Your task to perform on an android device: What is the price of a 12' ladder at Home Depot? Image 0: 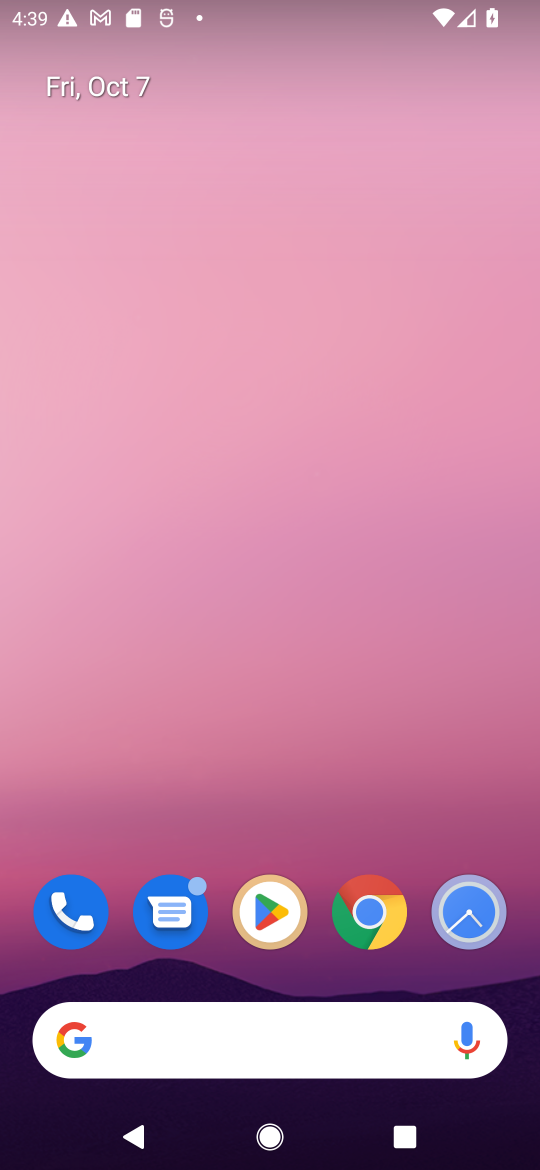
Step 0: drag from (131, 924) to (227, 357)
Your task to perform on an android device: What is the price of a 12' ladder at Home Depot? Image 1: 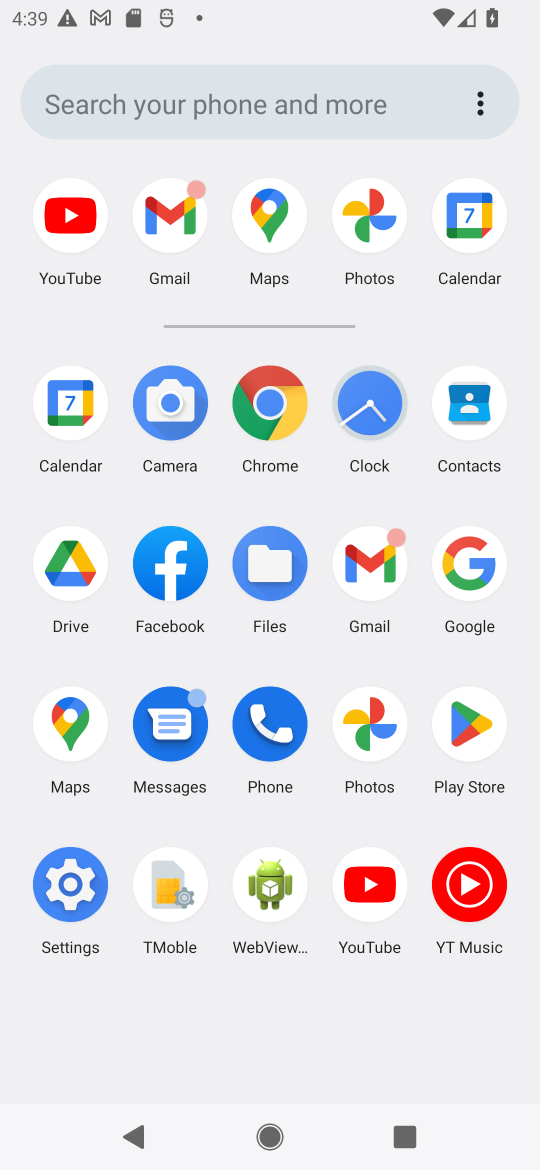
Step 1: click (473, 556)
Your task to perform on an android device: What is the price of a 12' ladder at Home Depot? Image 2: 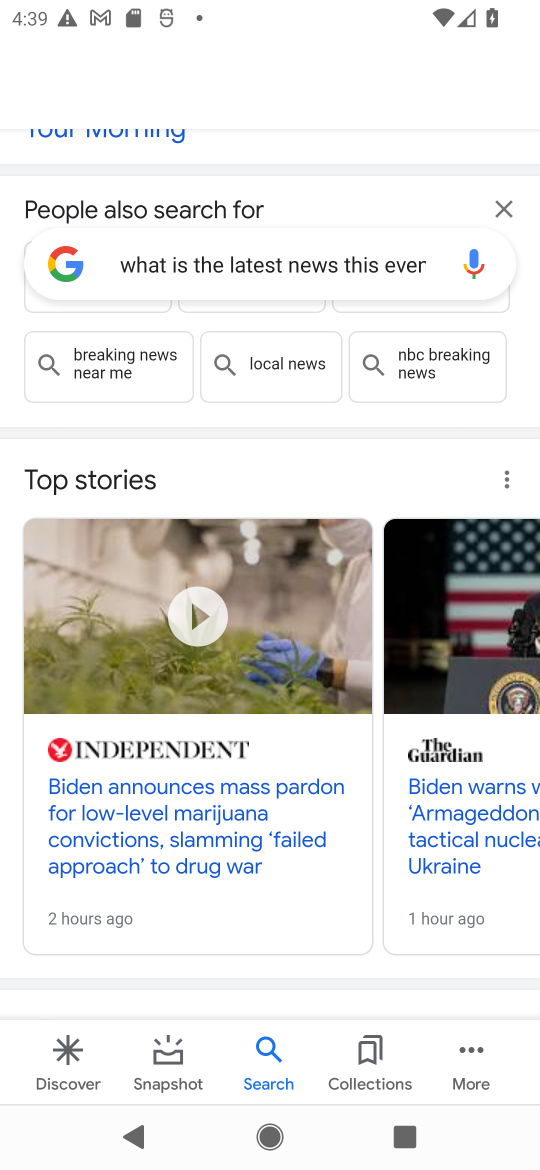
Step 2: click (360, 273)
Your task to perform on an android device: What is the price of a 12' ladder at Home Depot? Image 3: 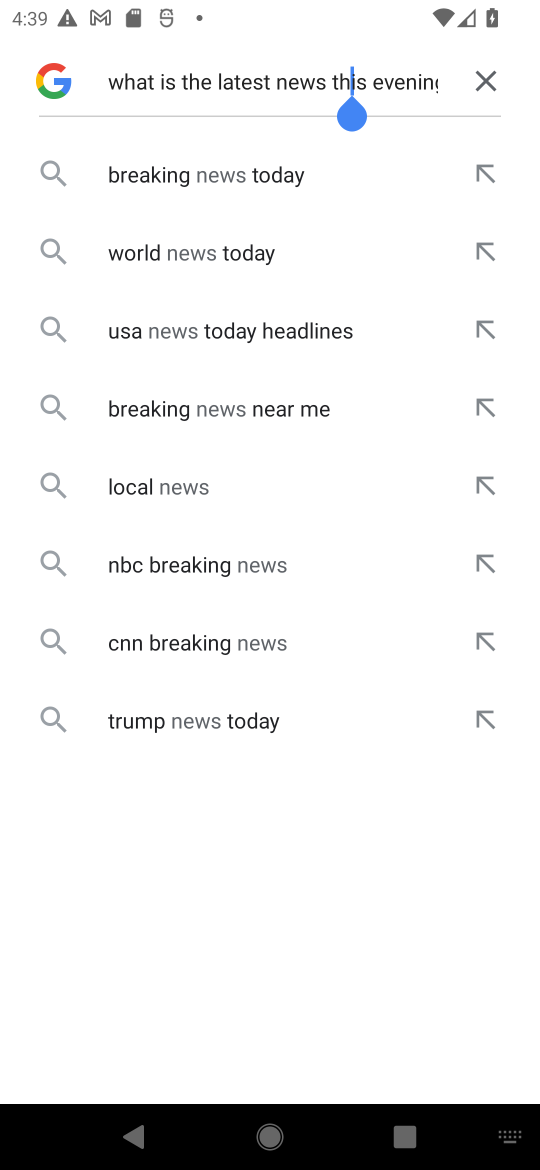
Step 3: click (466, 86)
Your task to perform on an android device: What is the price of a 12' ladder at Home Depot? Image 4: 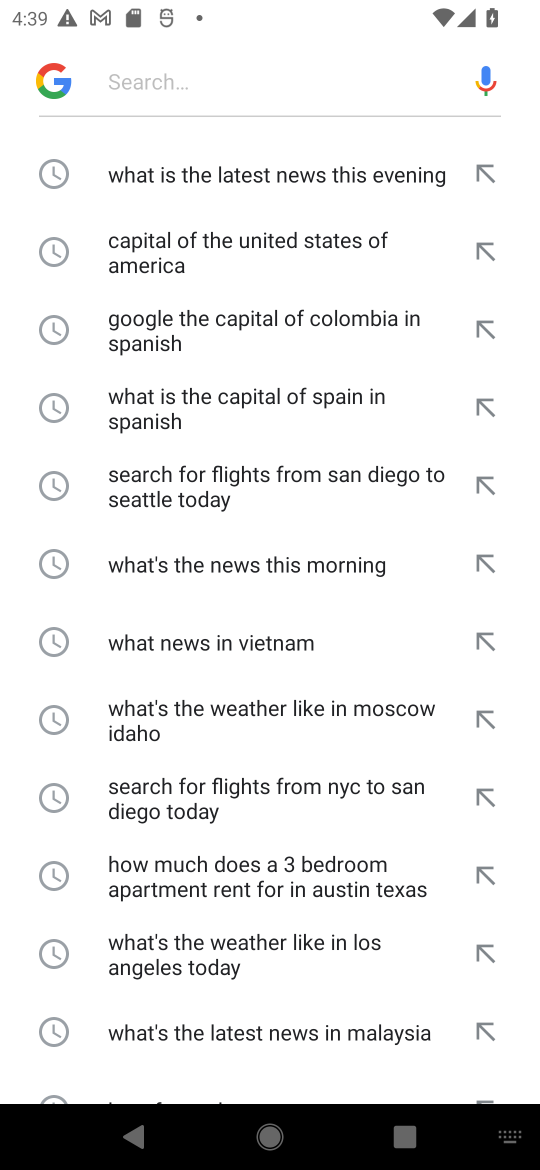
Step 4: click (288, 57)
Your task to perform on an android device: What is the price of a 12' ladder at Home Depot? Image 5: 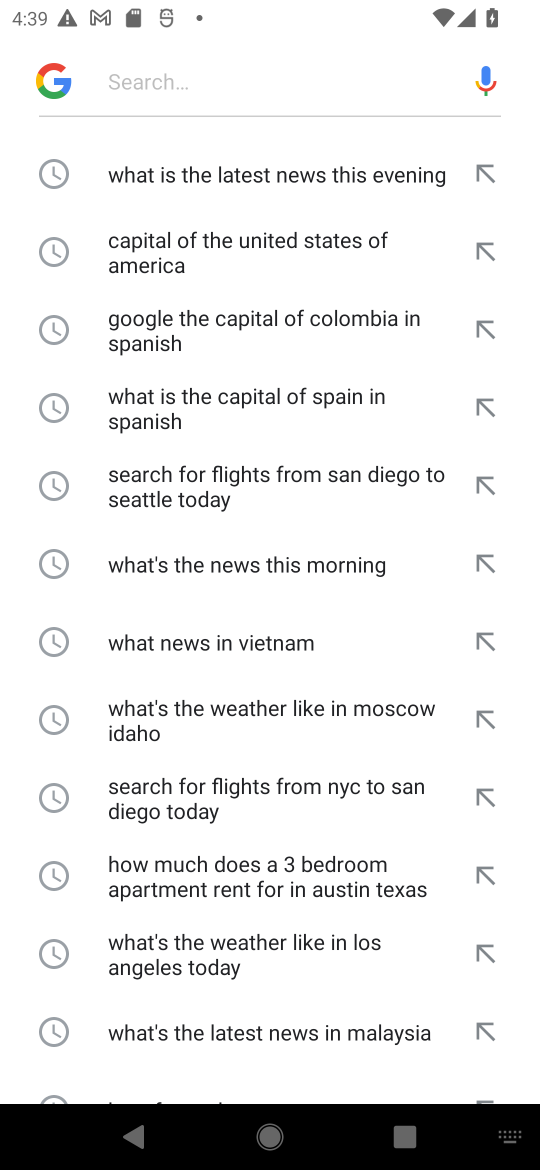
Step 5: type "What is the price of a 12' ladder at Home Depot? "
Your task to perform on an android device: What is the price of a 12' ladder at Home Depot? Image 6: 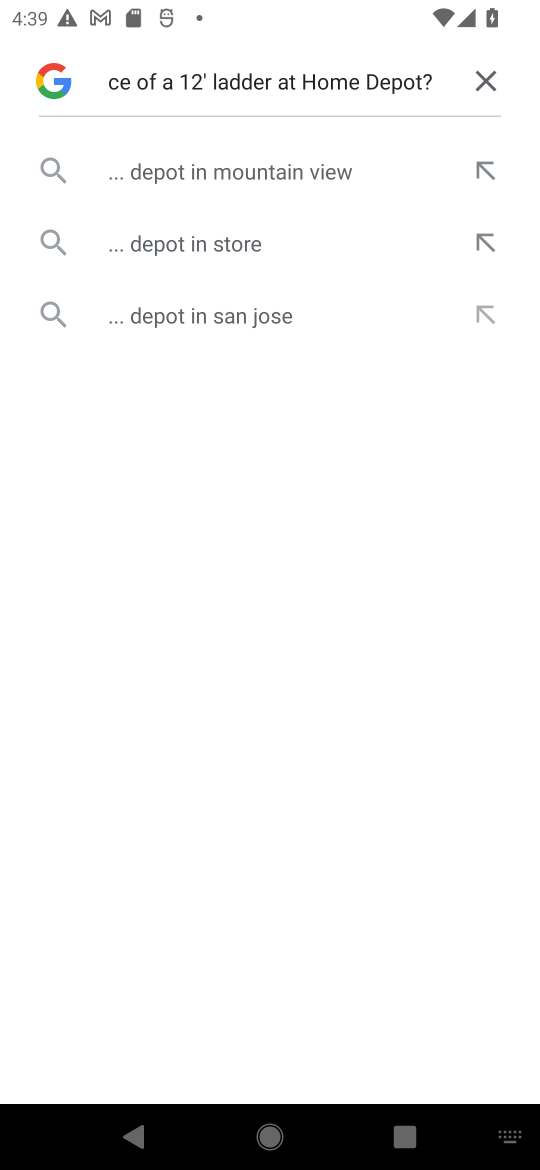
Step 6: click (211, 184)
Your task to perform on an android device: What is the price of a 12' ladder at Home Depot? Image 7: 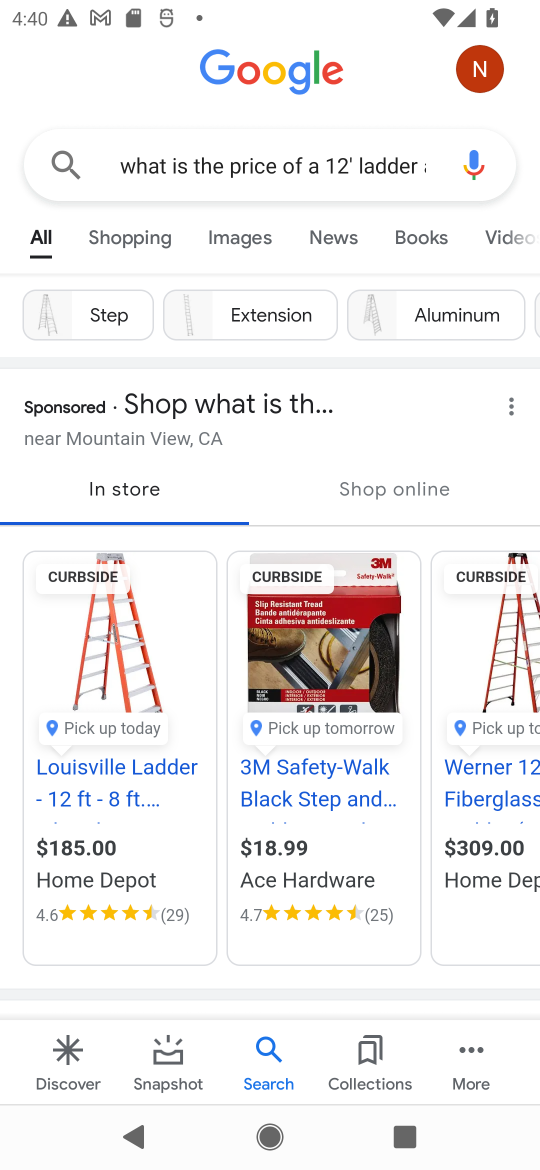
Step 7: task complete